Your task to perform on an android device: Go to network settings Image 0: 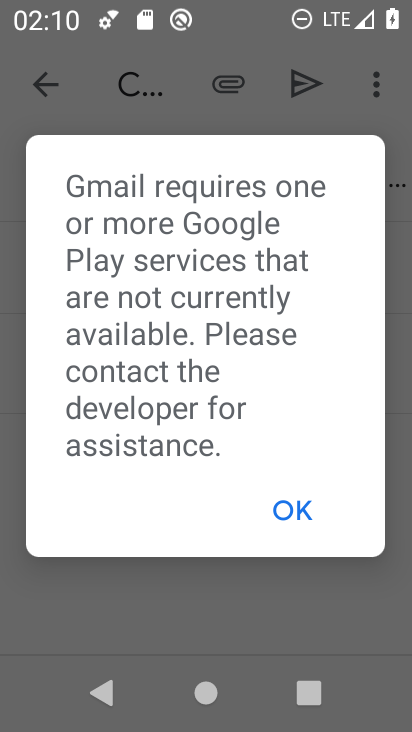
Step 0: press home button
Your task to perform on an android device: Go to network settings Image 1: 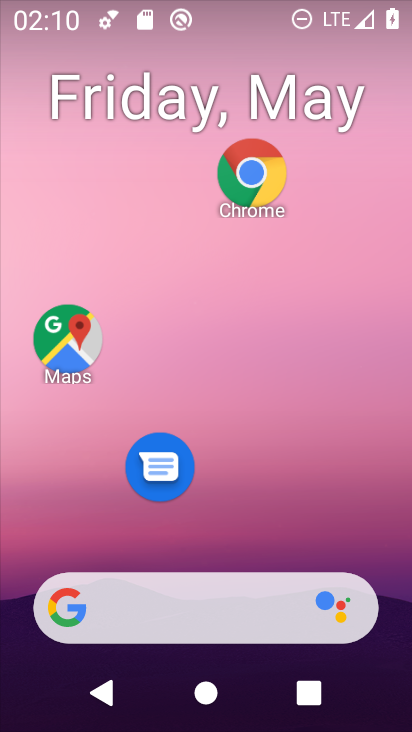
Step 1: drag from (276, 646) to (345, 78)
Your task to perform on an android device: Go to network settings Image 2: 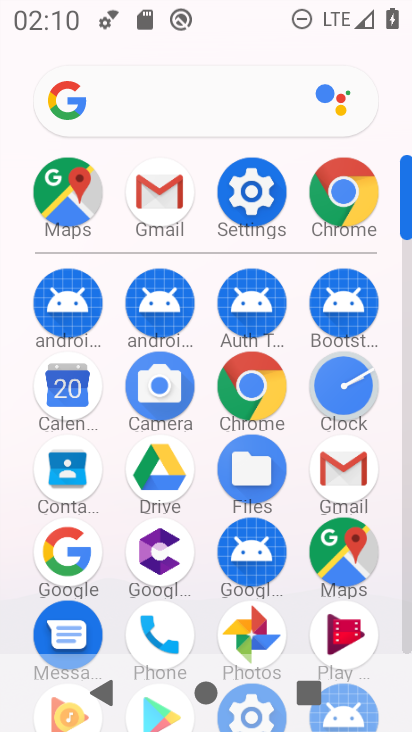
Step 2: click (257, 196)
Your task to perform on an android device: Go to network settings Image 3: 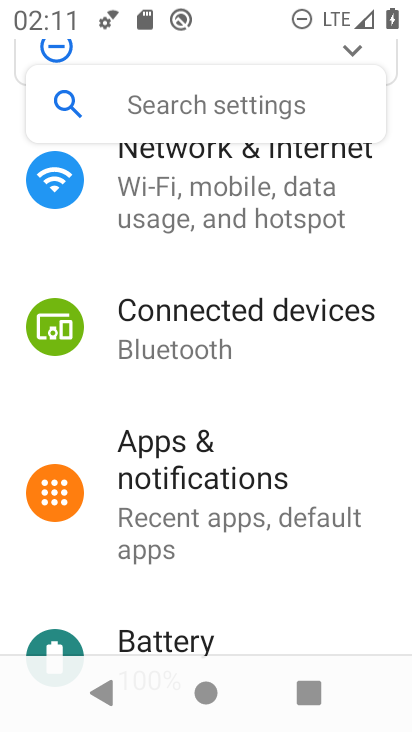
Step 3: click (246, 194)
Your task to perform on an android device: Go to network settings Image 4: 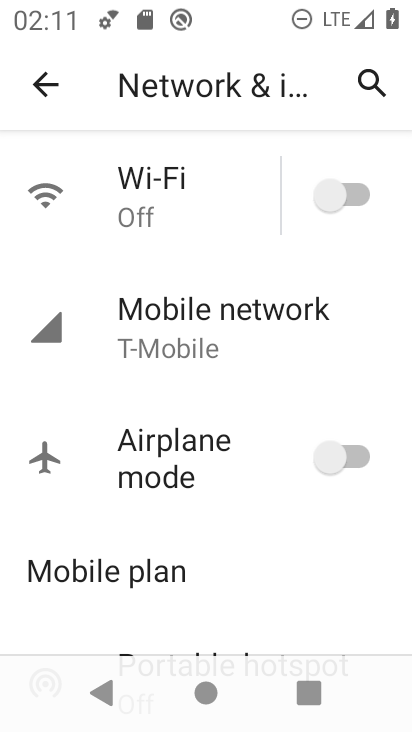
Step 4: task complete